Your task to perform on an android device: open sync settings in chrome Image 0: 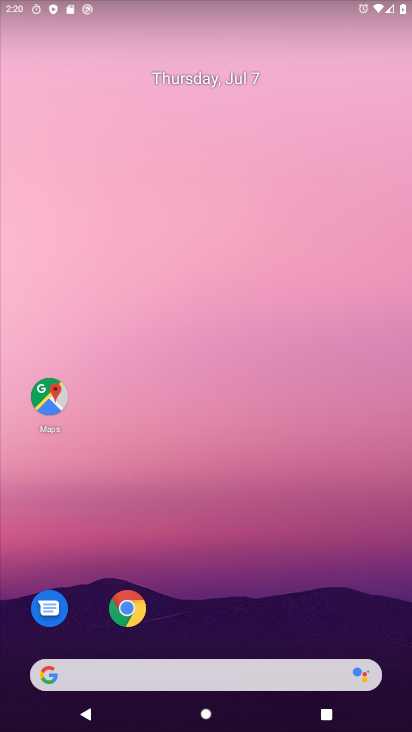
Step 0: click (128, 606)
Your task to perform on an android device: open sync settings in chrome Image 1: 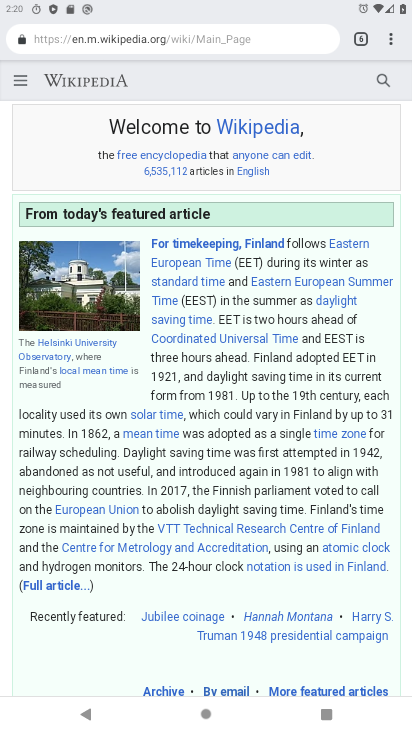
Step 1: click (392, 41)
Your task to perform on an android device: open sync settings in chrome Image 2: 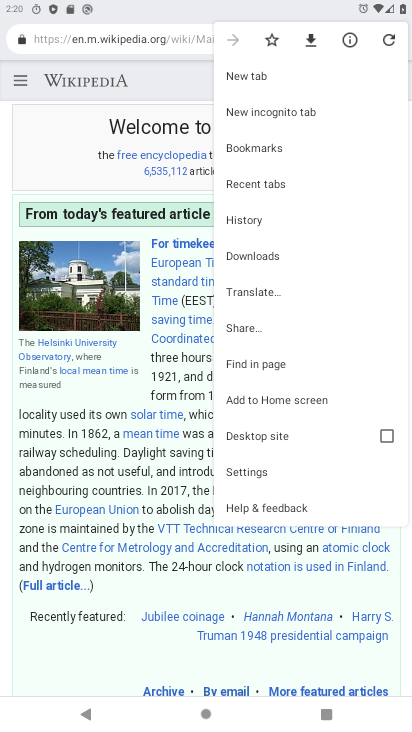
Step 2: click (247, 472)
Your task to perform on an android device: open sync settings in chrome Image 3: 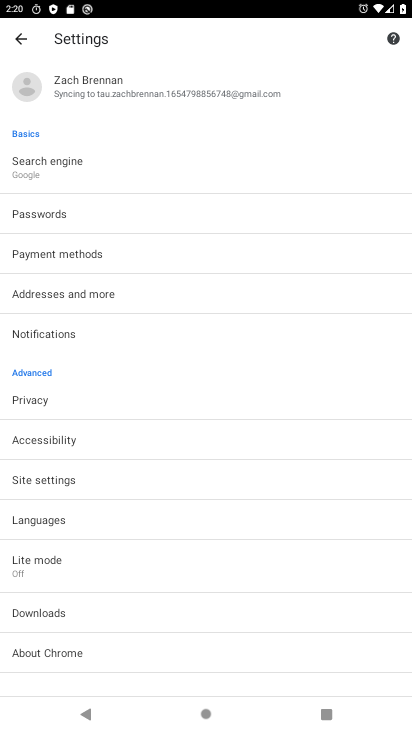
Step 3: click (36, 480)
Your task to perform on an android device: open sync settings in chrome Image 4: 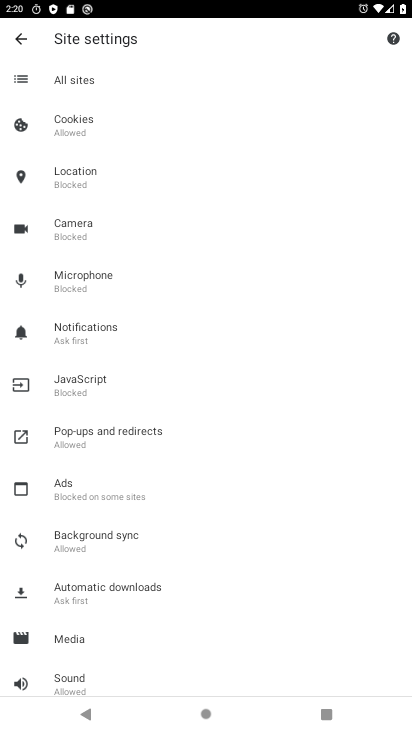
Step 4: click (85, 539)
Your task to perform on an android device: open sync settings in chrome Image 5: 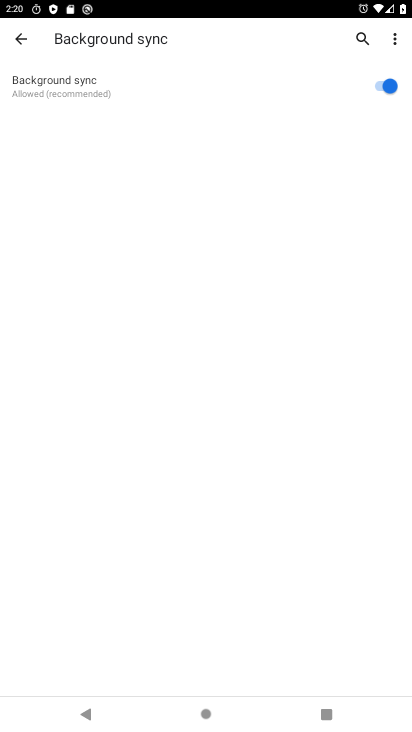
Step 5: task complete